Your task to perform on an android device: add a contact Image 0: 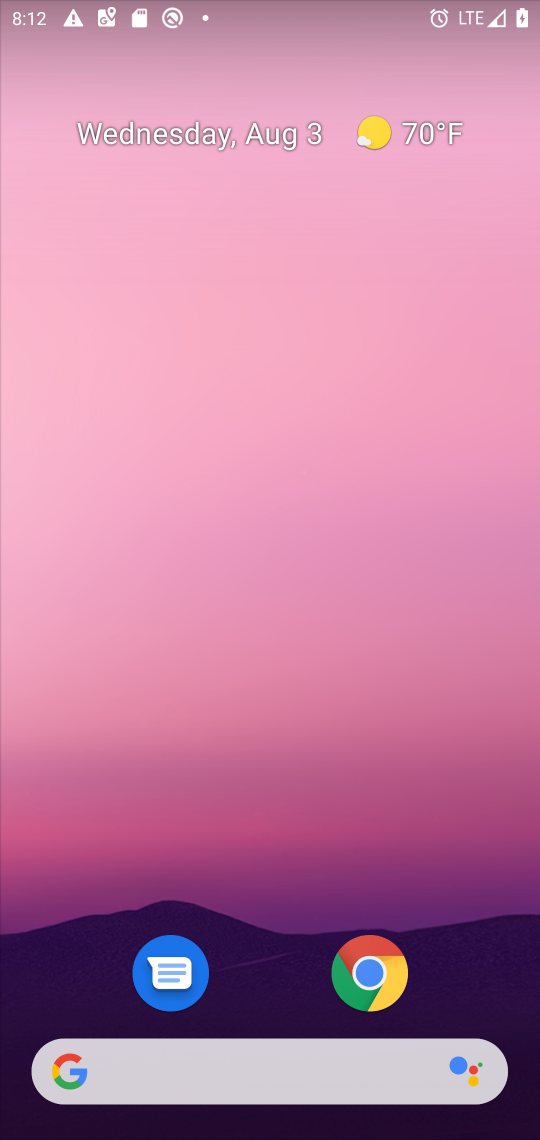
Step 0: press home button
Your task to perform on an android device: add a contact Image 1: 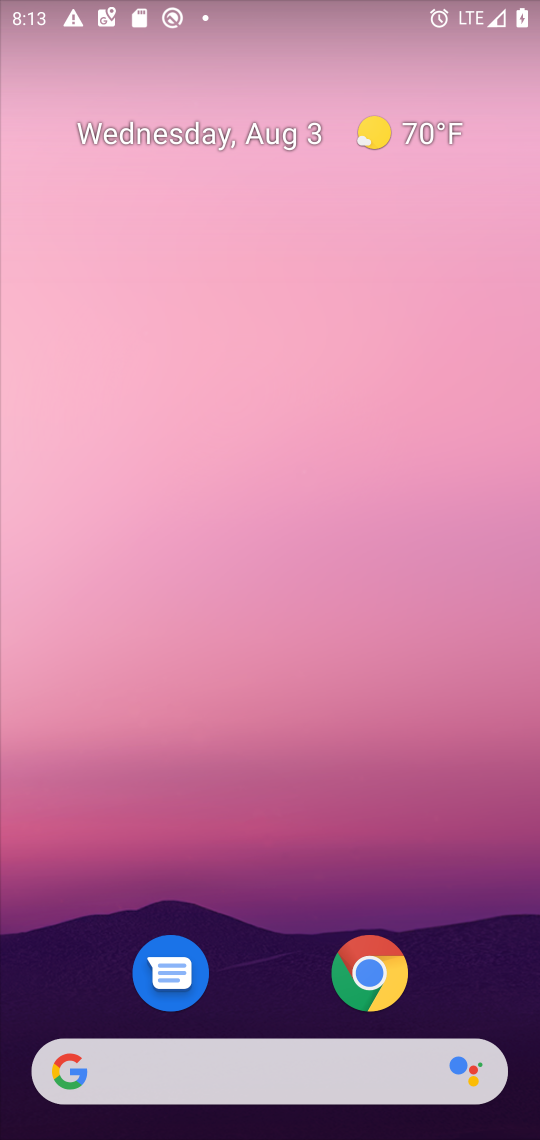
Step 1: click (482, 1076)
Your task to perform on an android device: add a contact Image 2: 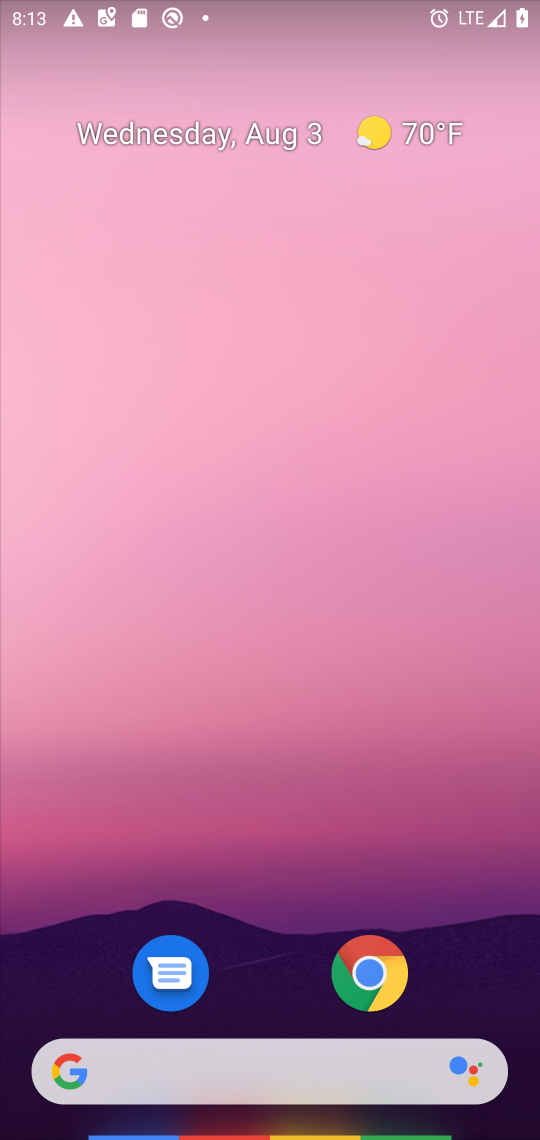
Step 2: drag from (302, 842) to (314, 0)
Your task to perform on an android device: add a contact Image 3: 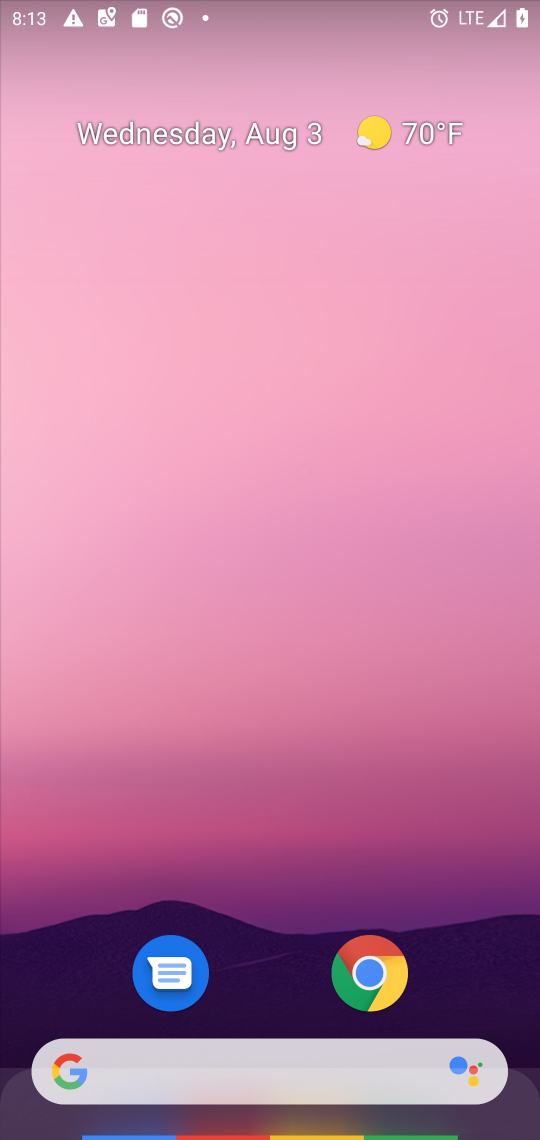
Step 3: click (291, 527)
Your task to perform on an android device: add a contact Image 4: 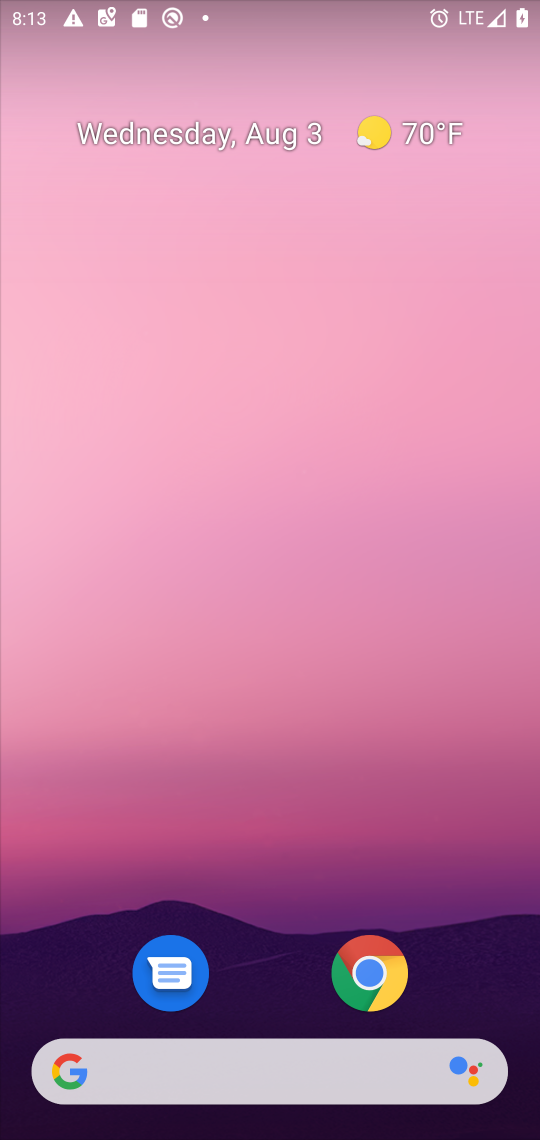
Step 4: drag from (267, 950) to (325, 48)
Your task to perform on an android device: add a contact Image 5: 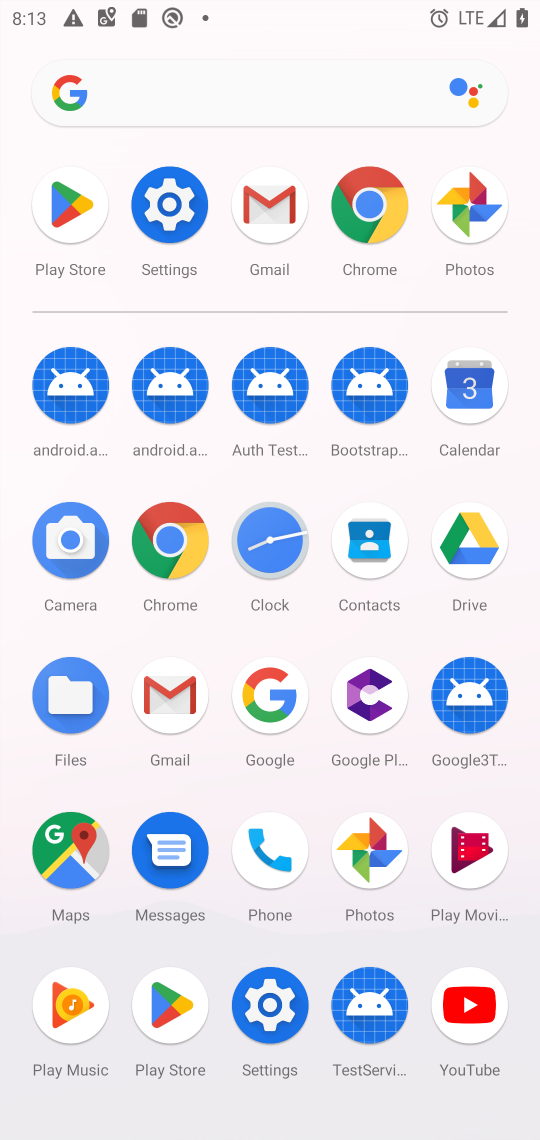
Step 5: click (362, 529)
Your task to perform on an android device: add a contact Image 6: 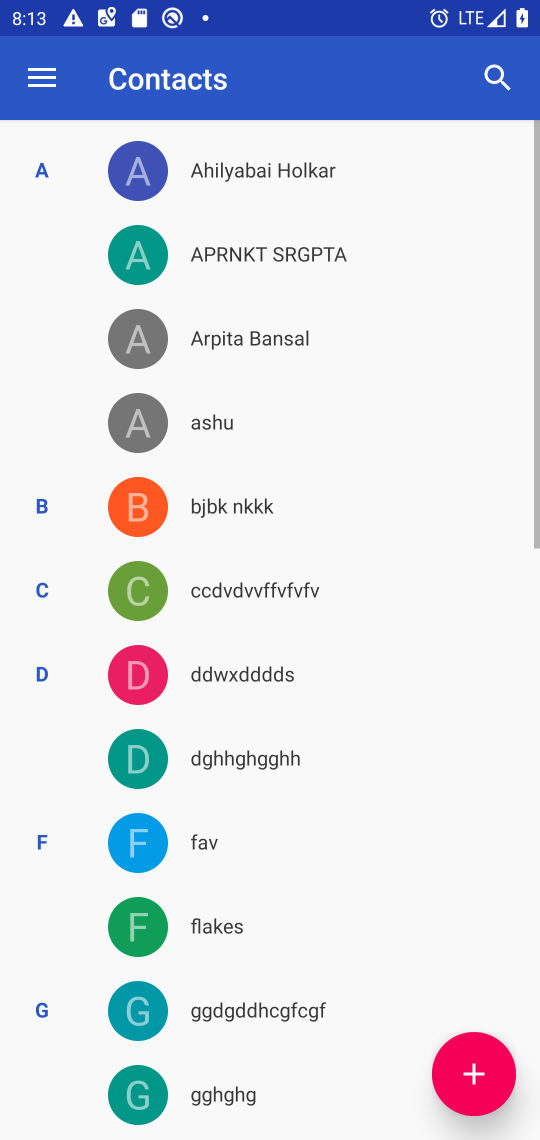
Step 6: click (463, 1073)
Your task to perform on an android device: add a contact Image 7: 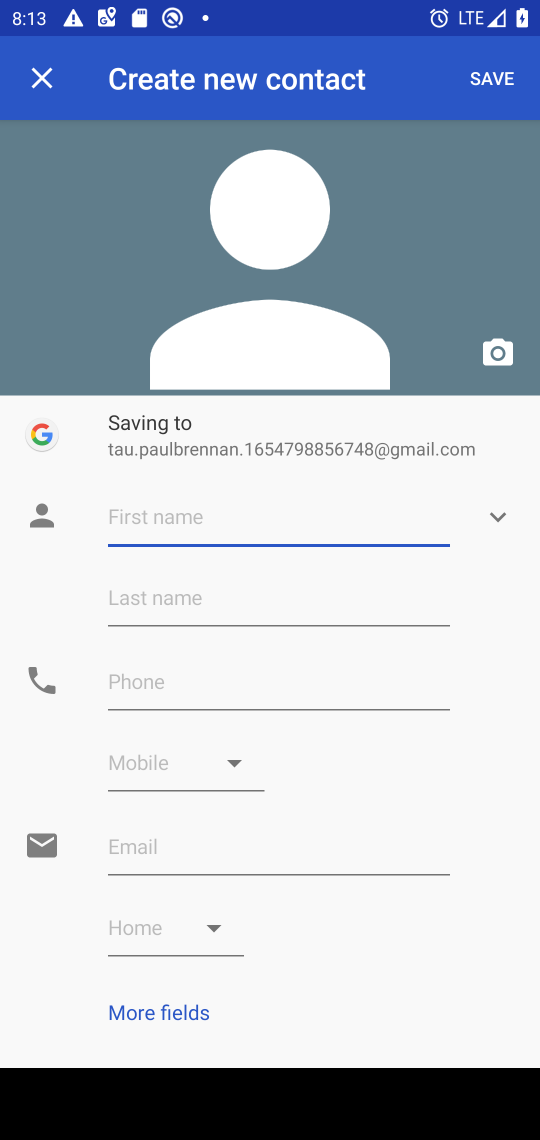
Step 7: click (192, 520)
Your task to perform on an android device: add a contact Image 8: 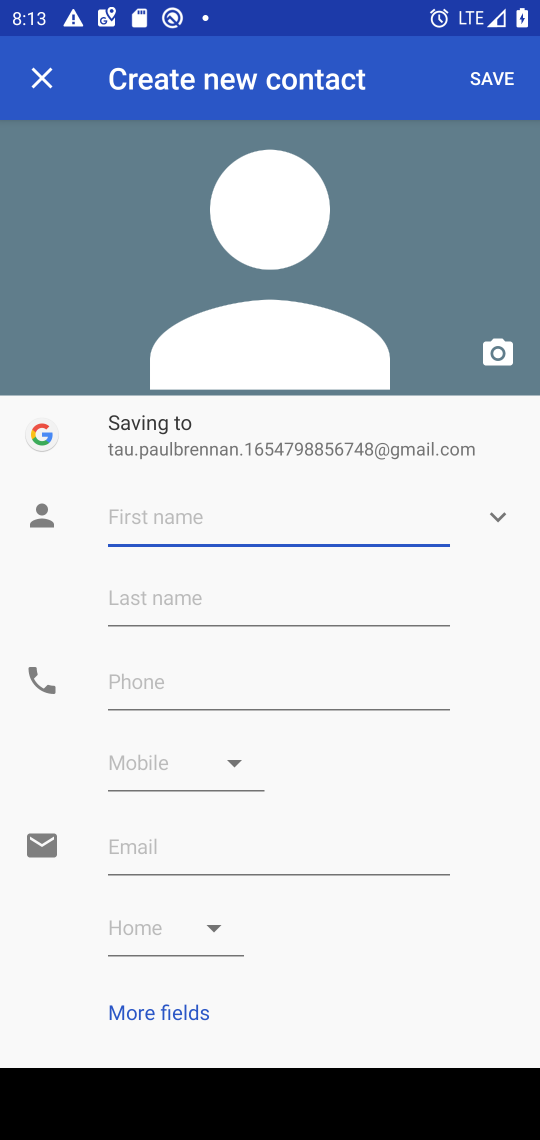
Step 8: type "dcjhsgdfi"
Your task to perform on an android device: add a contact Image 9: 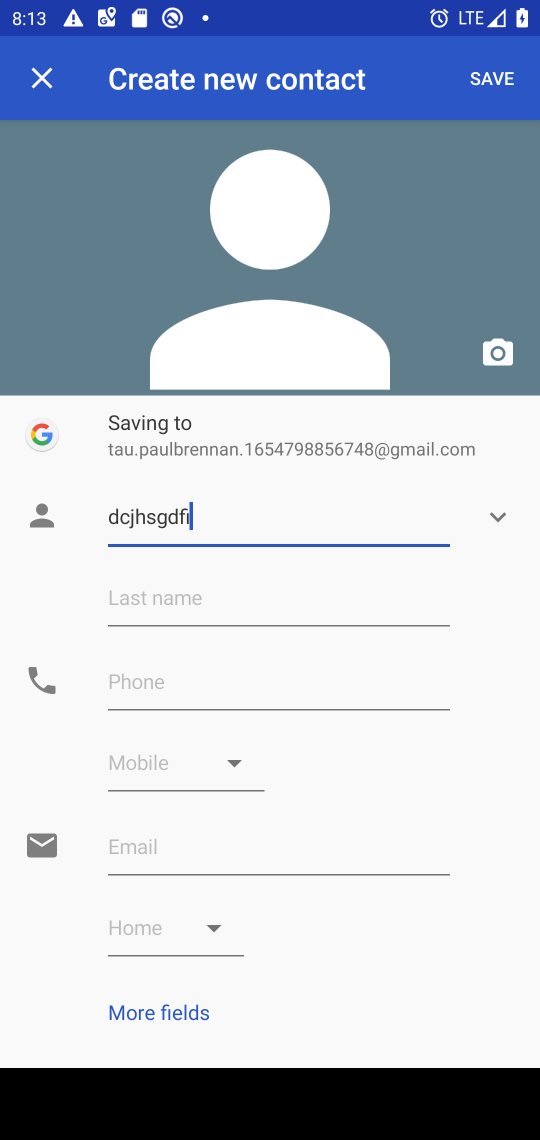
Step 9: click (487, 64)
Your task to perform on an android device: add a contact Image 10: 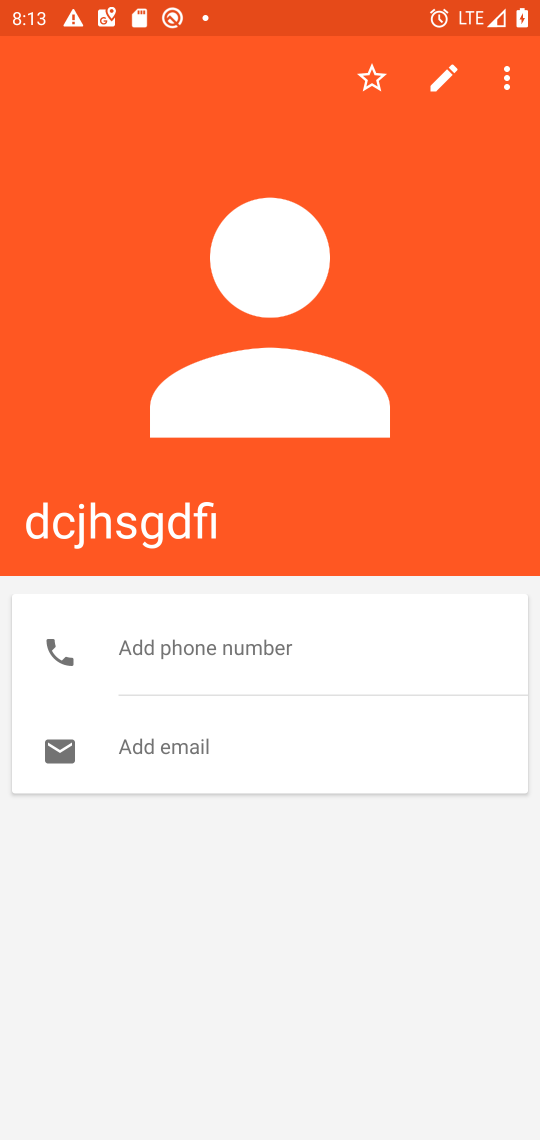
Step 10: task complete